Your task to perform on an android device: delete a single message in the gmail app Image 0: 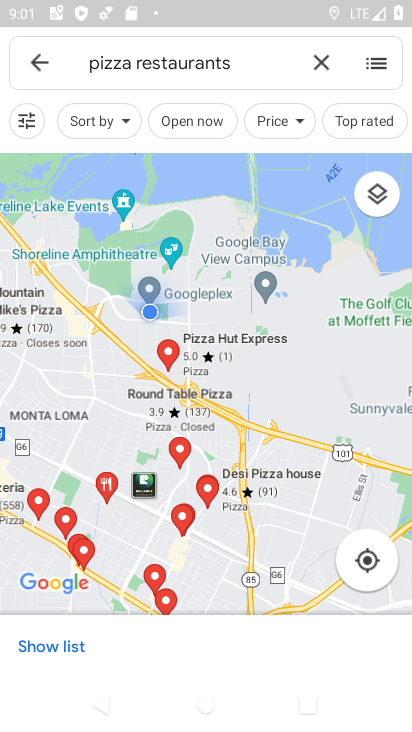
Step 0: press home button
Your task to perform on an android device: delete a single message in the gmail app Image 1: 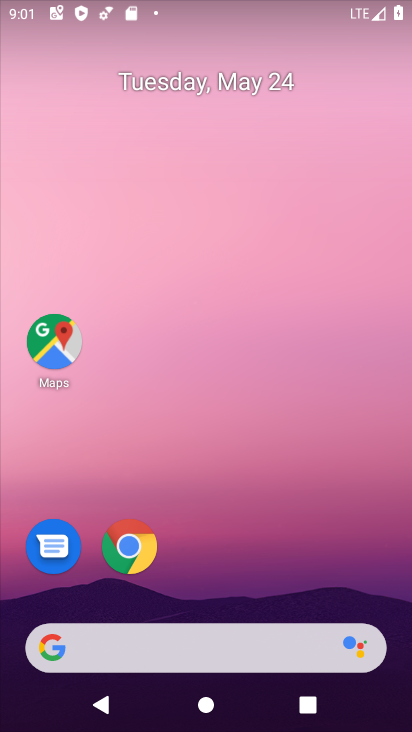
Step 1: drag from (229, 542) to (266, 49)
Your task to perform on an android device: delete a single message in the gmail app Image 2: 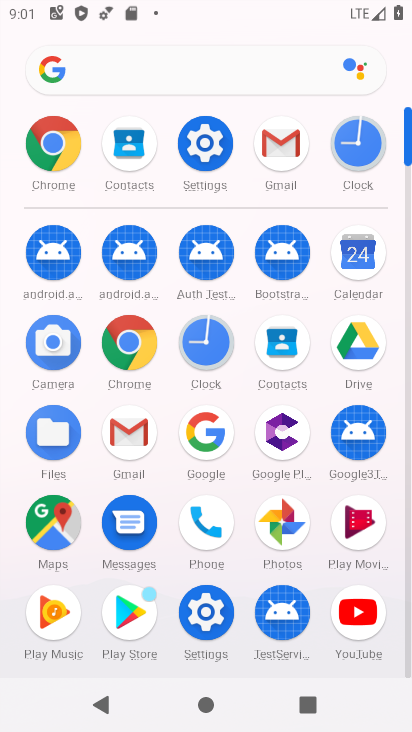
Step 2: click (277, 138)
Your task to perform on an android device: delete a single message in the gmail app Image 3: 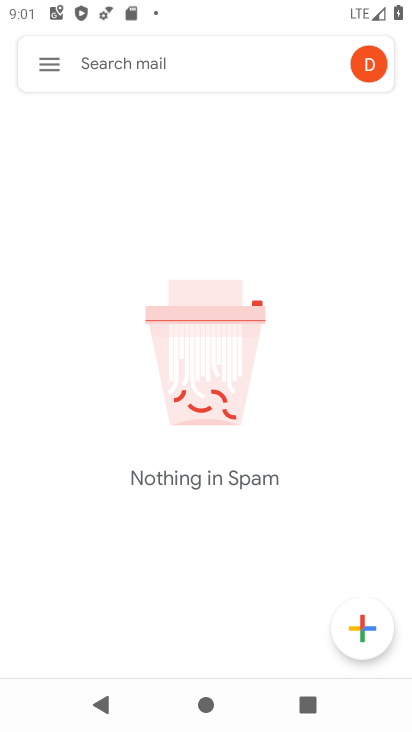
Step 3: click (40, 60)
Your task to perform on an android device: delete a single message in the gmail app Image 4: 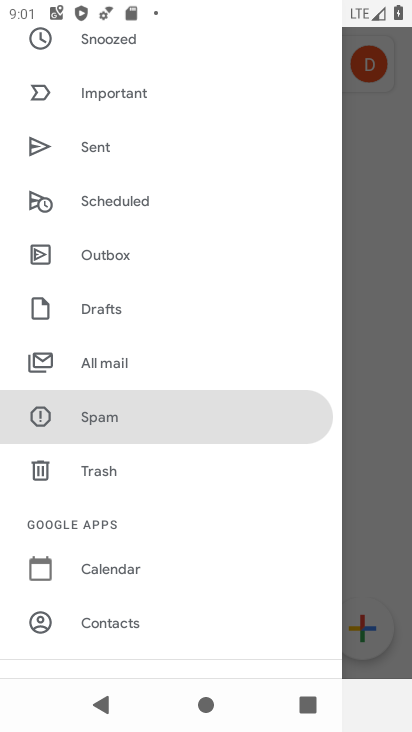
Step 4: click (131, 344)
Your task to perform on an android device: delete a single message in the gmail app Image 5: 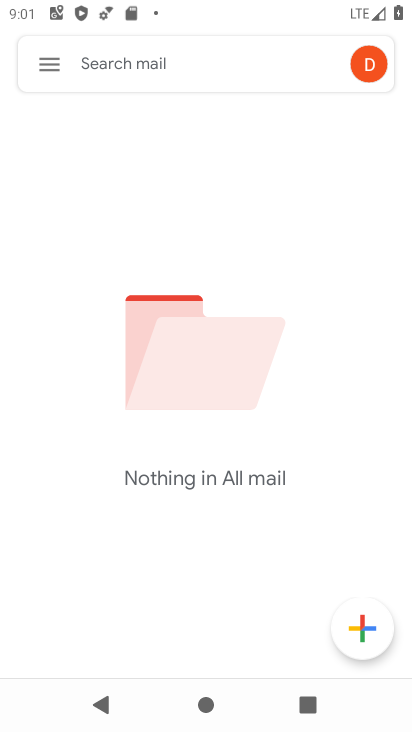
Step 5: task complete